Your task to perform on an android device: Open settings Image 0: 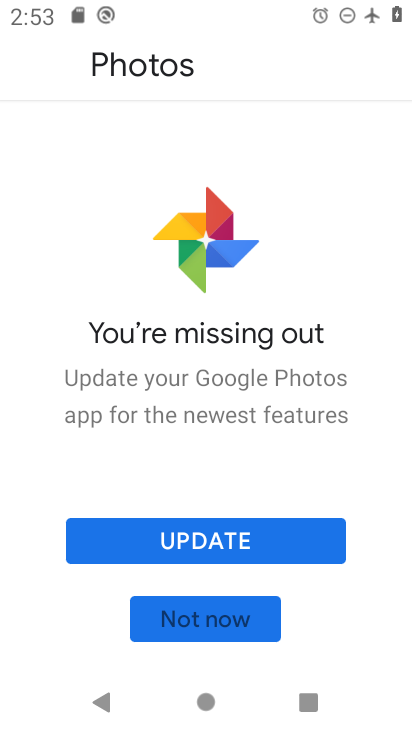
Step 0: click (229, 539)
Your task to perform on an android device: Open settings Image 1: 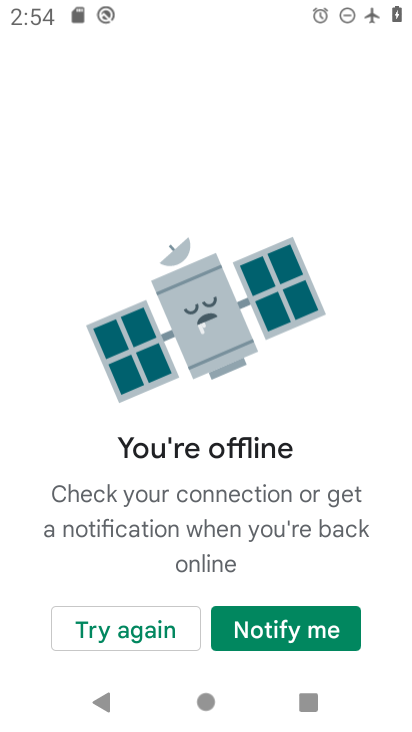
Step 1: task complete